Your task to perform on an android device: check data usage Image 0: 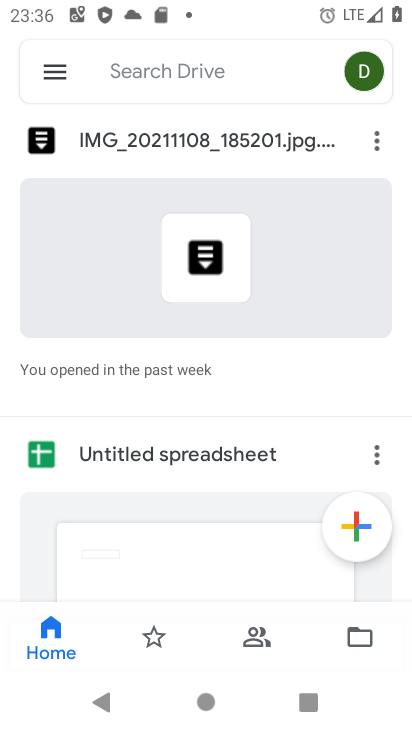
Step 0: press home button
Your task to perform on an android device: check data usage Image 1: 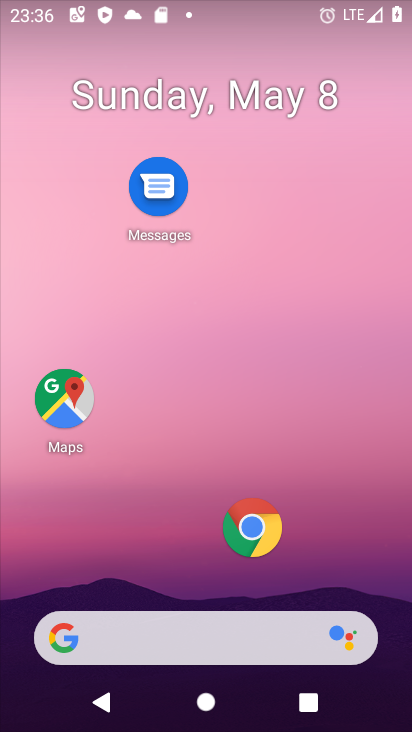
Step 1: drag from (192, 563) to (172, 162)
Your task to perform on an android device: check data usage Image 2: 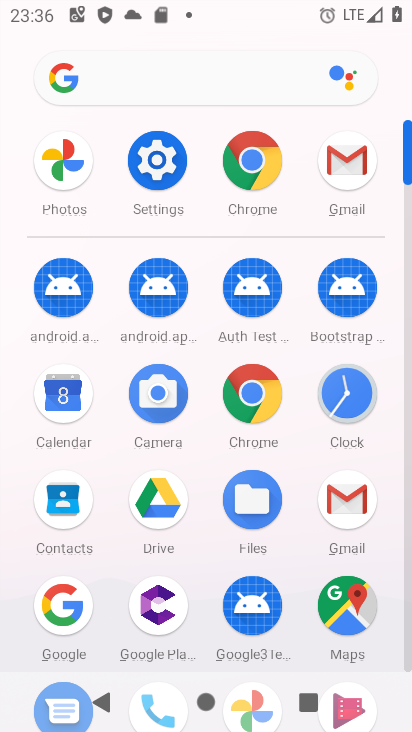
Step 2: click (152, 155)
Your task to perform on an android device: check data usage Image 3: 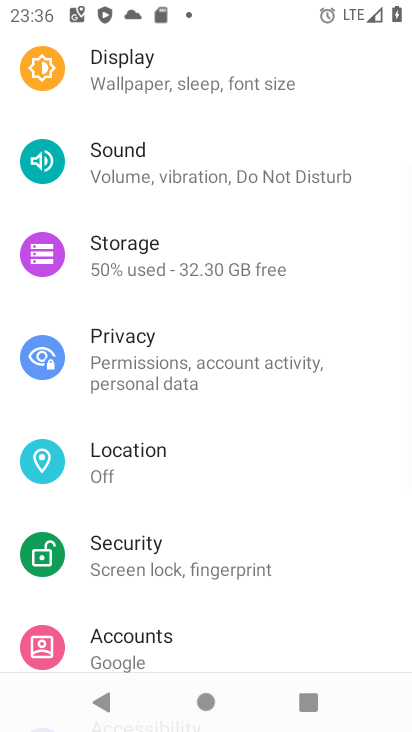
Step 3: drag from (151, 106) to (256, 622)
Your task to perform on an android device: check data usage Image 4: 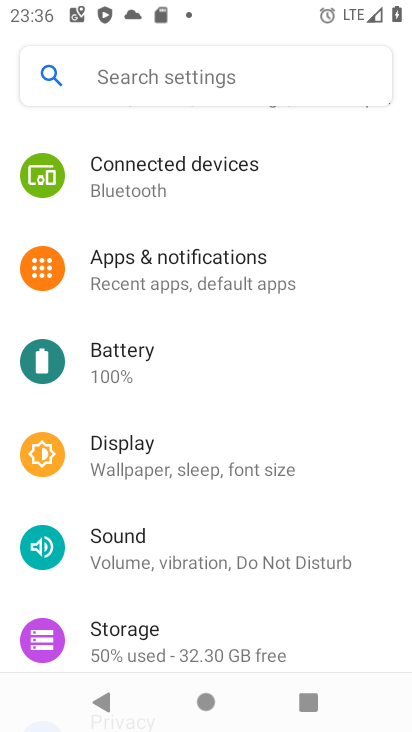
Step 4: drag from (154, 182) to (186, 527)
Your task to perform on an android device: check data usage Image 5: 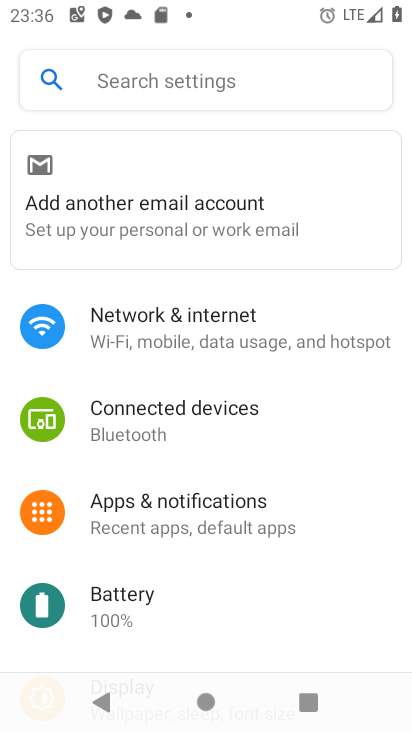
Step 5: click (156, 323)
Your task to perform on an android device: check data usage Image 6: 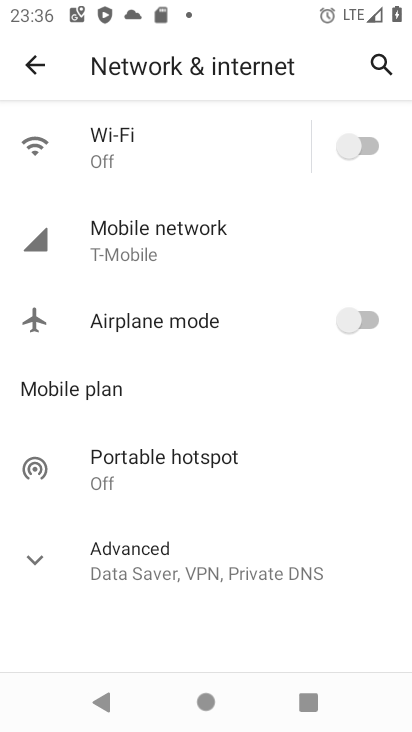
Step 6: click (158, 255)
Your task to perform on an android device: check data usage Image 7: 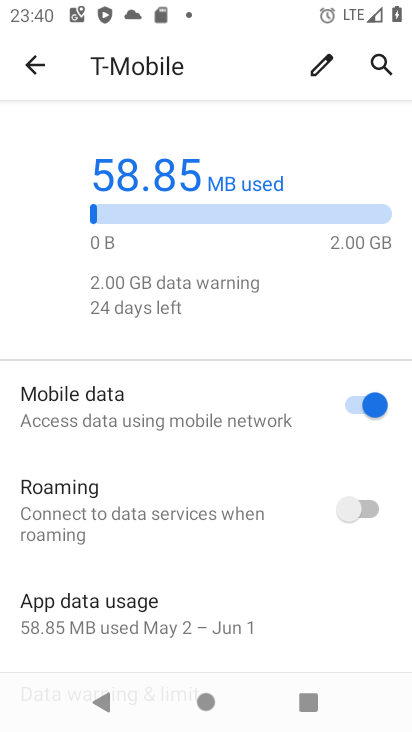
Step 7: task complete